Your task to perform on an android device: turn on the 24-hour format for clock Image 0: 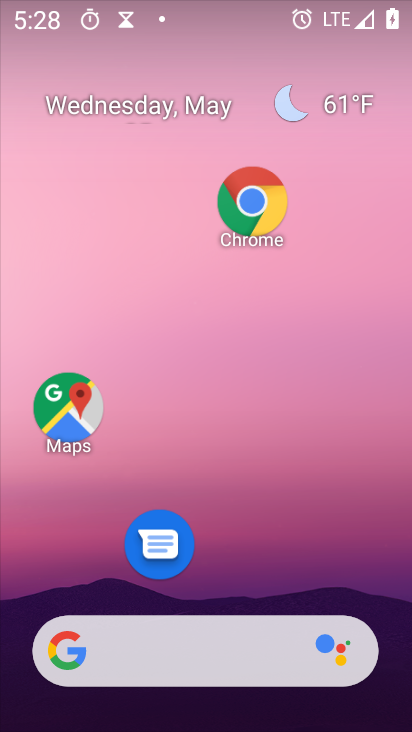
Step 0: drag from (240, 582) to (244, 256)
Your task to perform on an android device: turn on the 24-hour format for clock Image 1: 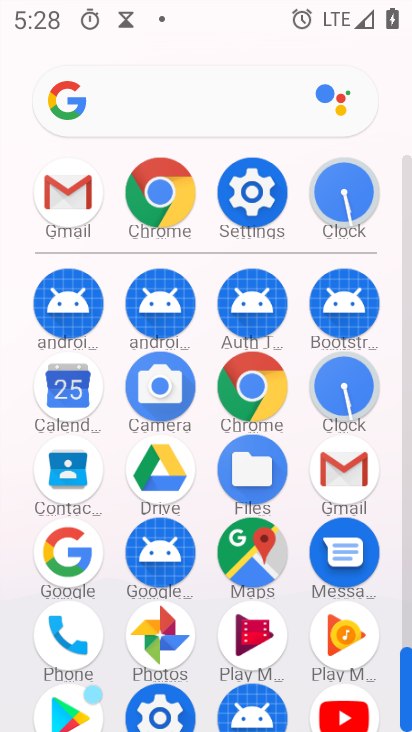
Step 1: click (356, 205)
Your task to perform on an android device: turn on the 24-hour format for clock Image 2: 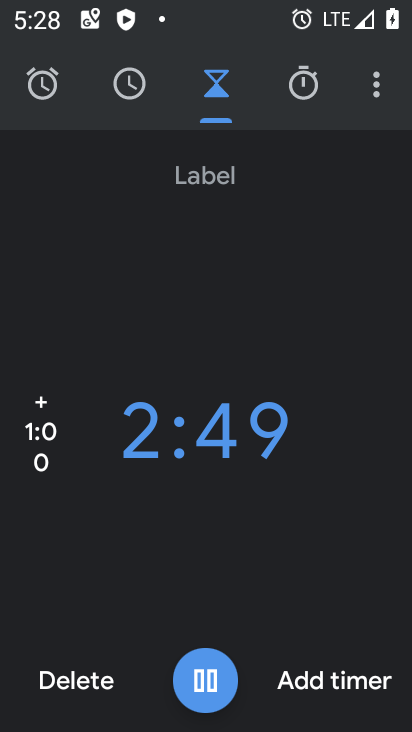
Step 2: click (382, 90)
Your task to perform on an android device: turn on the 24-hour format for clock Image 3: 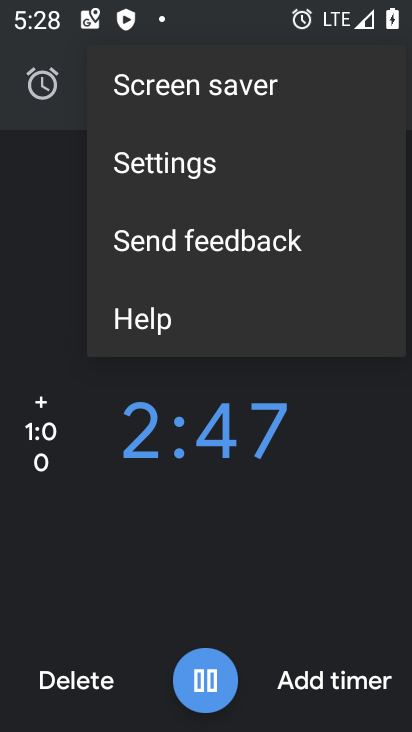
Step 3: click (167, 151)
Your task to perform on an android device: turn on the 24-hour format for clock Image 4: 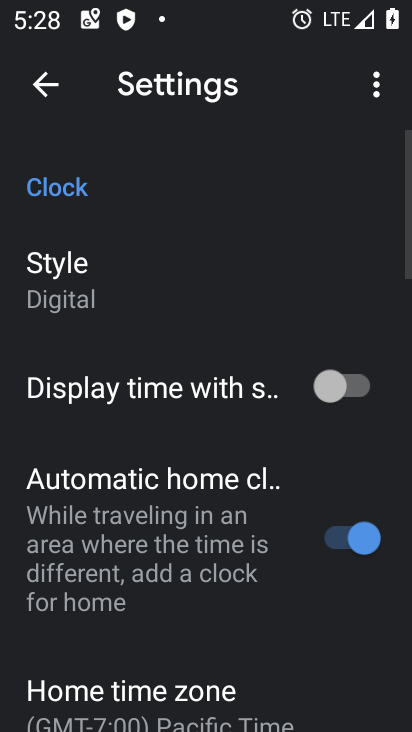
Step 4: drag from (169, 718) to (169, 374)
Your task to perform on an android device: turn on the 24-hour format for clock Image 5: 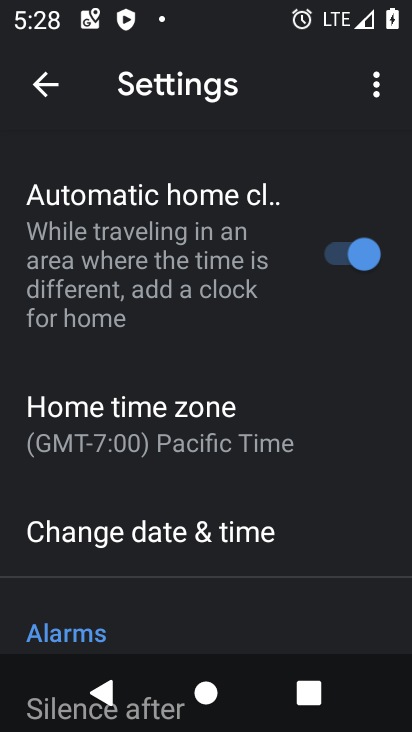
Step 5: click (167, 536)
Your task to perform on an android device: turn on the 24-hour format for clock Image 6: 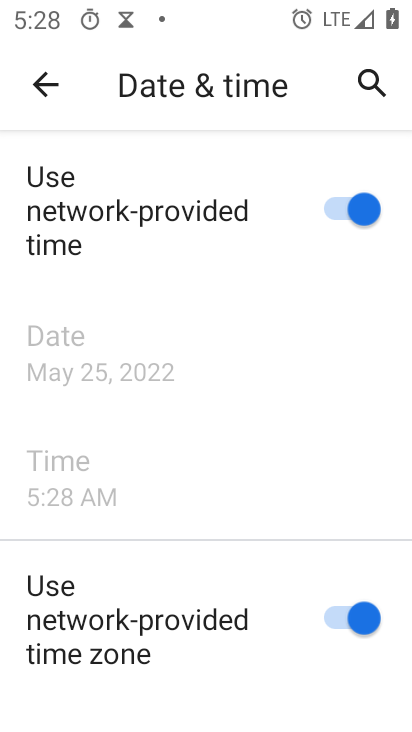
Step 6: drag from (177, 690) to (210, 346)
Your task to perform on an android device: turn on the 24-hour format for clock Image 7: 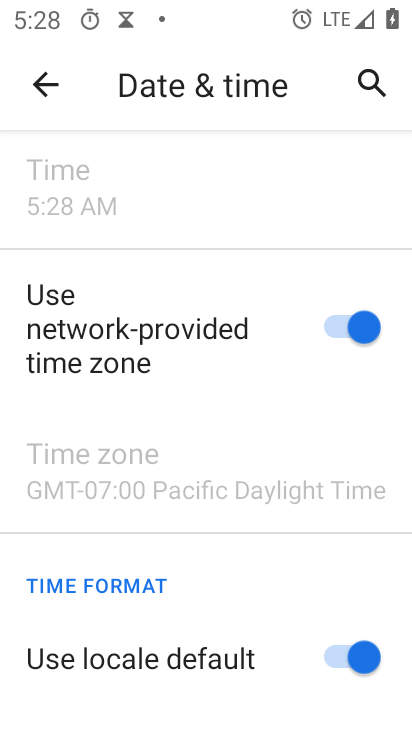
Step 7: drag from (276, 637) to (271, 436)
Your task to perform on an android device: turn on the 24-hour format for clock Image 8: 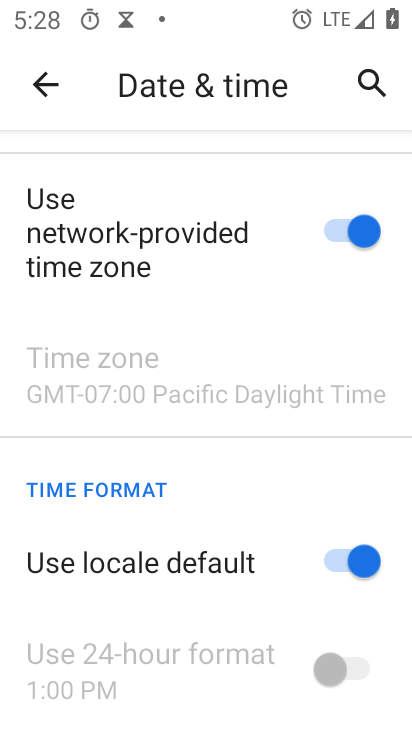
Step 8: click (355, 663)
Your task to perform on an android device: turn on the 24-hour format for clock Image 9: 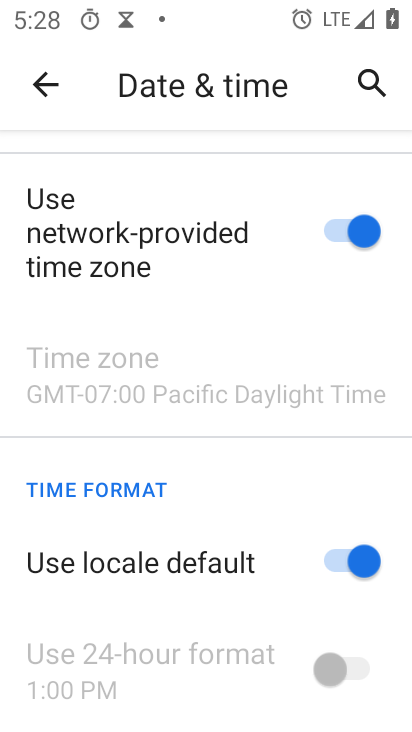
Step 9: click (341, 558)
Your task to perform on an android device: turn on the 24-hour format for clock Image 10: 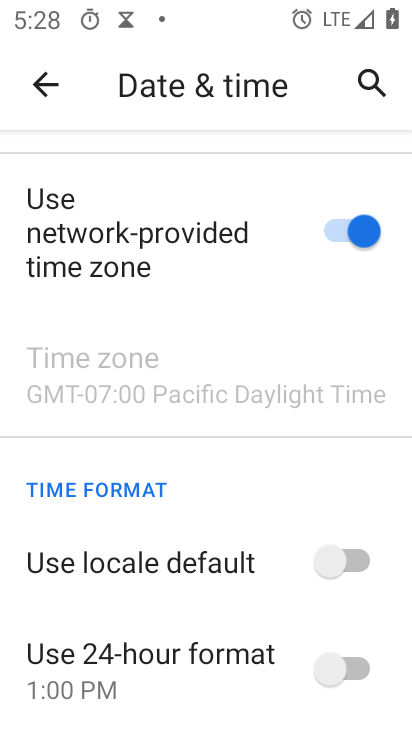
Step 10: click (356, 667)
Your task to perform on an android device: turn on the 24-hour format for clock Image 11: 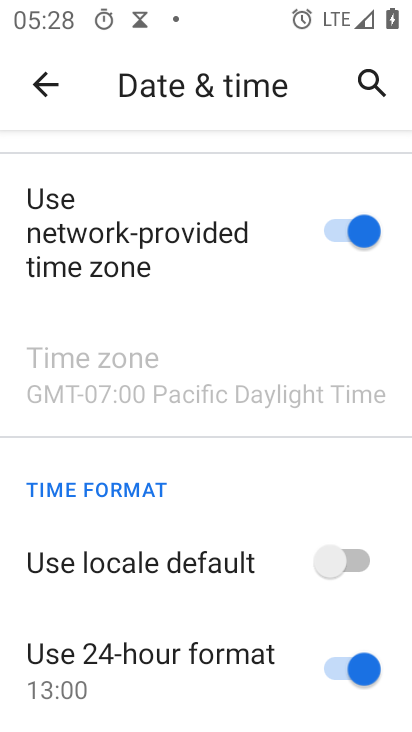
Step 11: task complete